Your task to perform on an android device: uninstall "Google Calendar" Image 0: 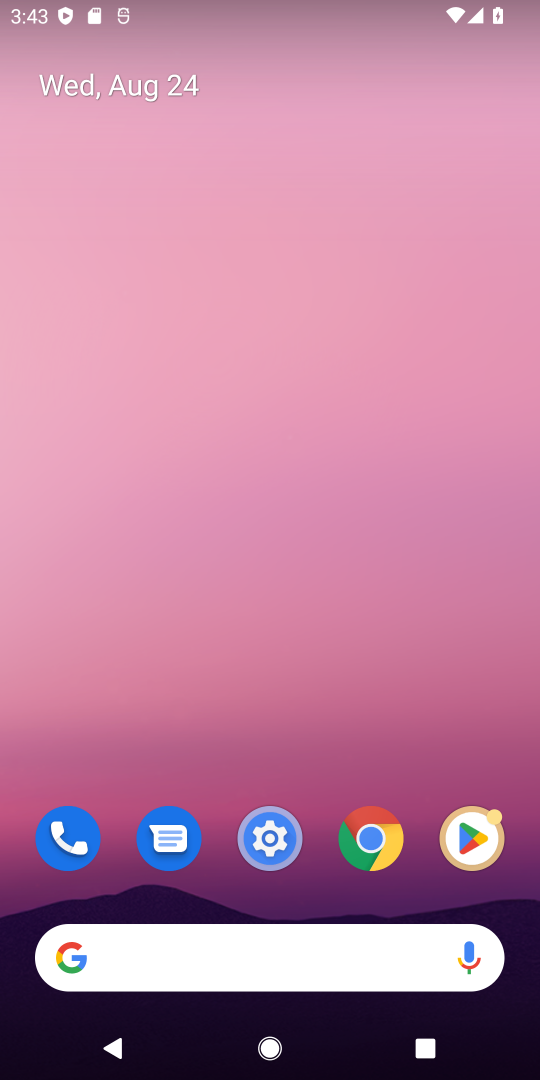
Step 0: press home button
Your task to perform on an android device: uninstall "Google Calendar" Image 1: 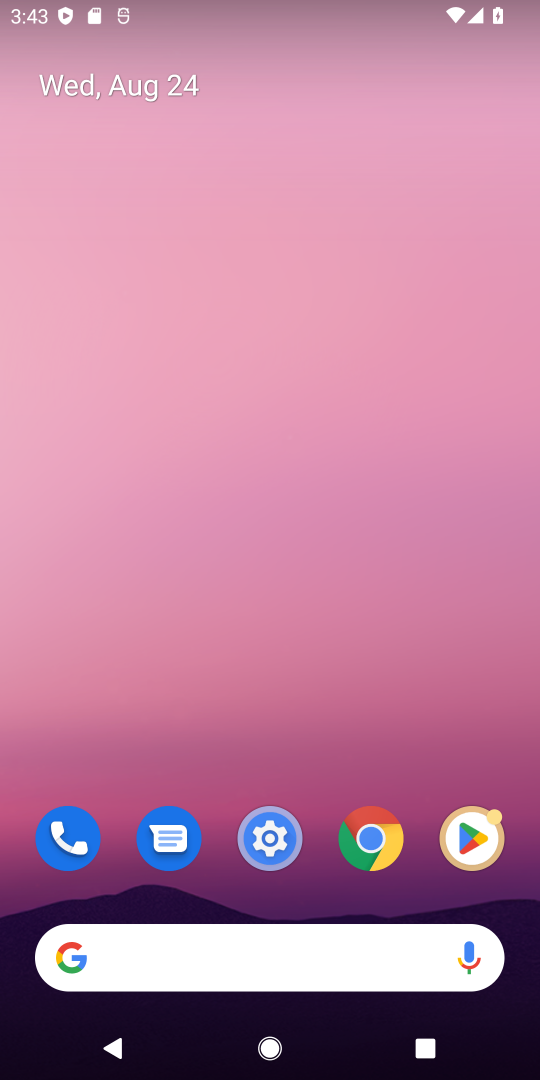
Step 1: click (476, 821)
Your task to perform on an android device: uninstall "Google Calendar" Image 2: 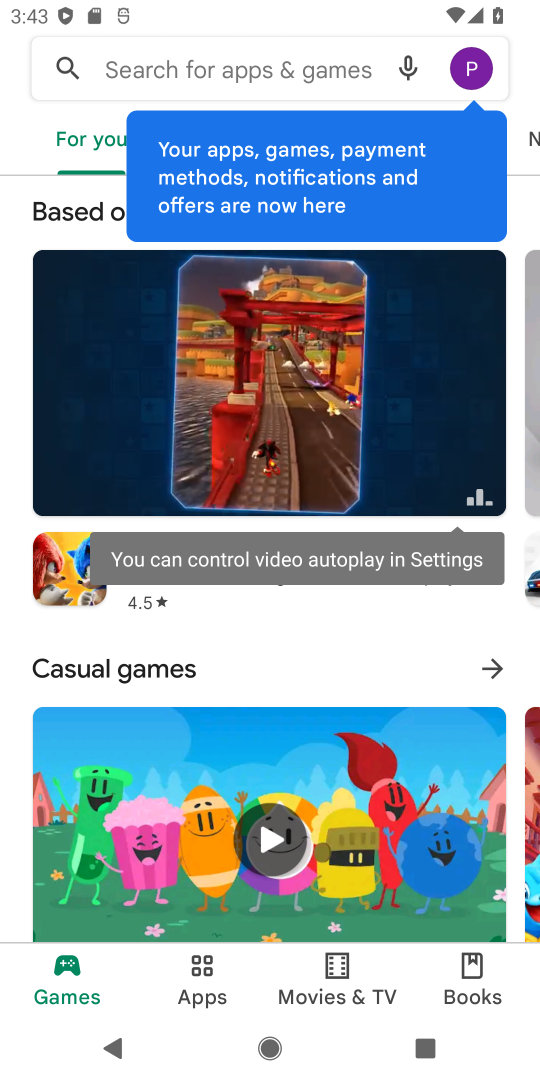
Step 2: click (162, 60)
Your task to perform on an android device: uninstall "Google Calendar" Image 3: 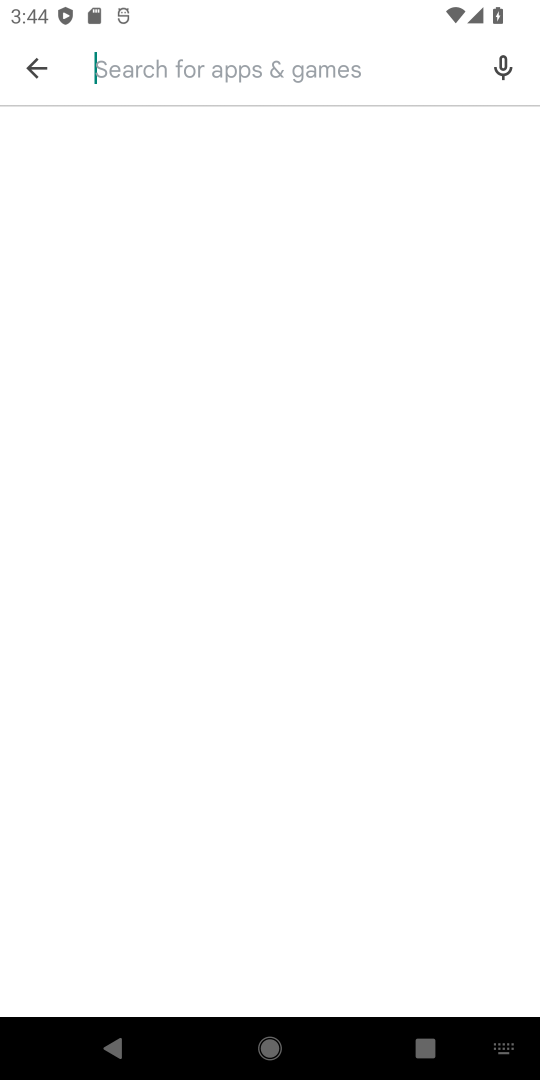
Step 3: type "Google Calendar"
Your task to perform on an android device: uninstall "Google Calendar" Image 4: 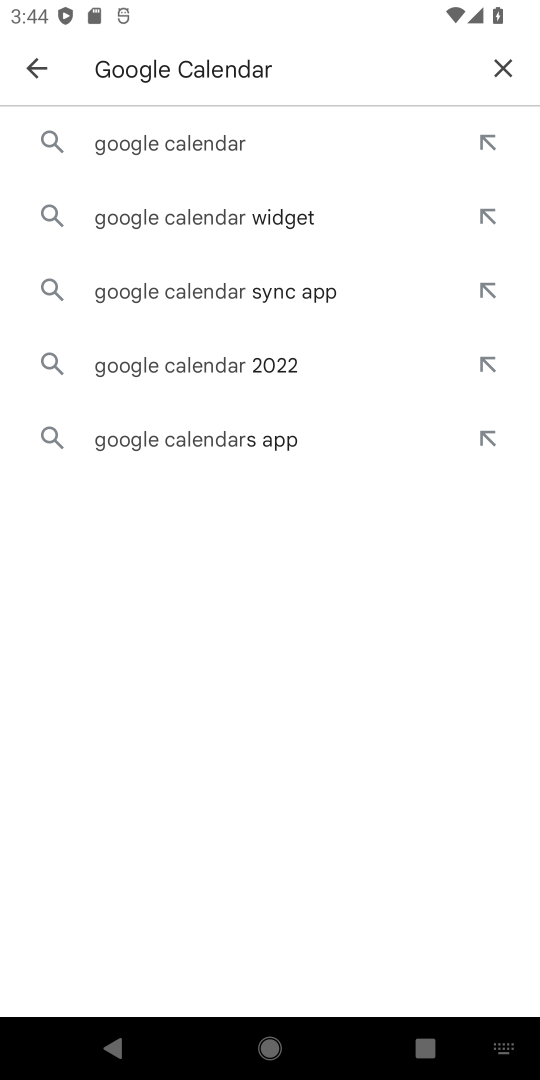
Step 4: click (266, 142)
Your task to perform on an android device: uninstall "Google Calendar" Image 5: 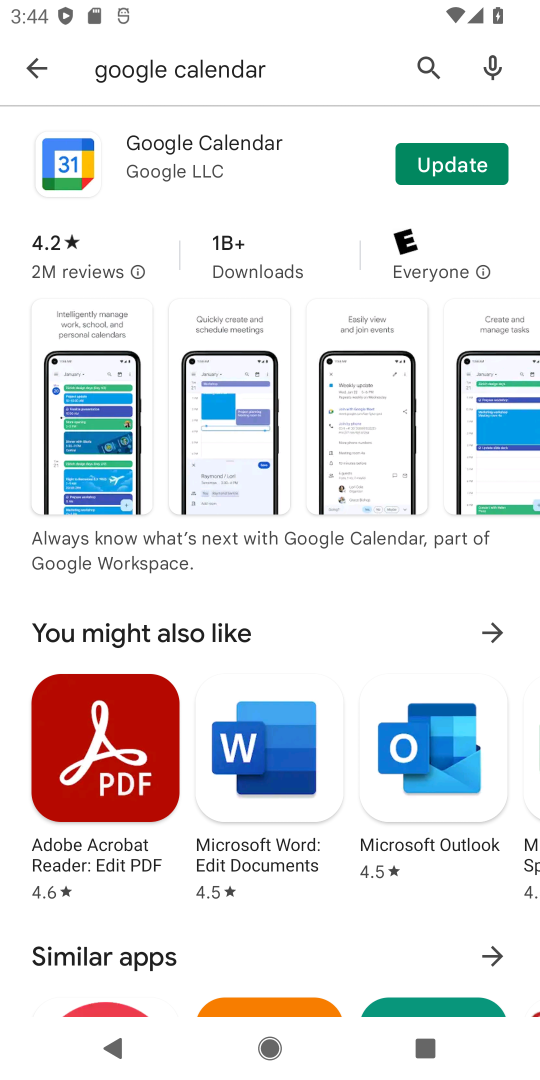
Step 5: task complete